Your task to perform on an android device: turn off translation in the chrome app Image 0: 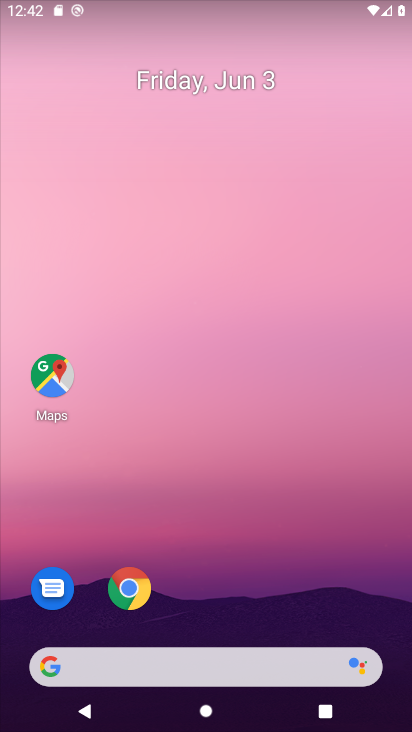
Step 0: drag from (261, 321) to (270, 223)
Your task to perform on an android device: turn off translation in the chrome app Image 1: 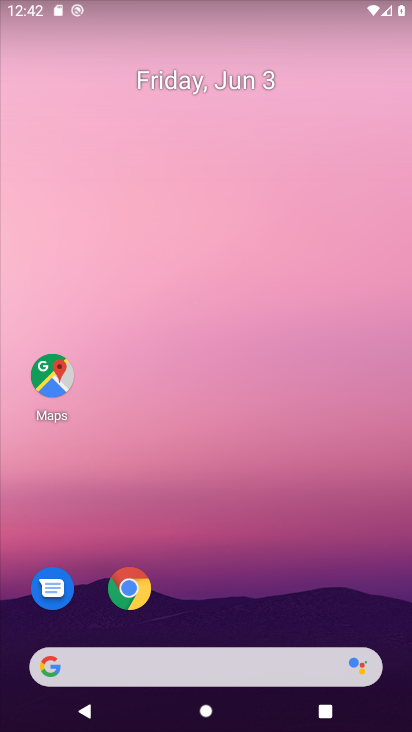
Step 1: drag from (213, 208) to (213, 171)
Your task to perform on an android device: turn off translation in the chrome app Image 2: 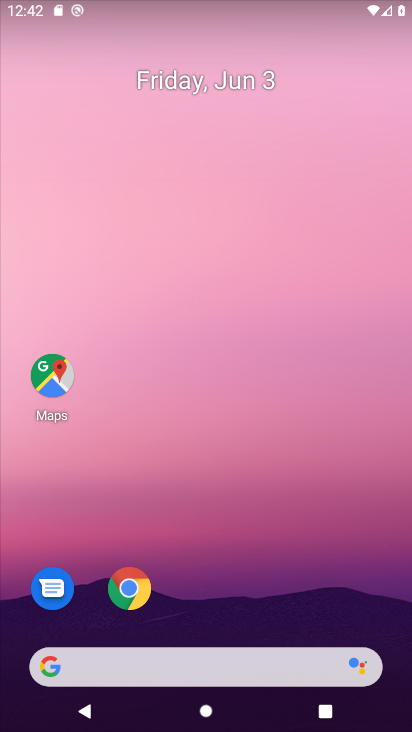
Step 2: drag from (186, 632) to (222, 239)
Your task to perform on an android device: turn off translation in the chrome app Image 3: 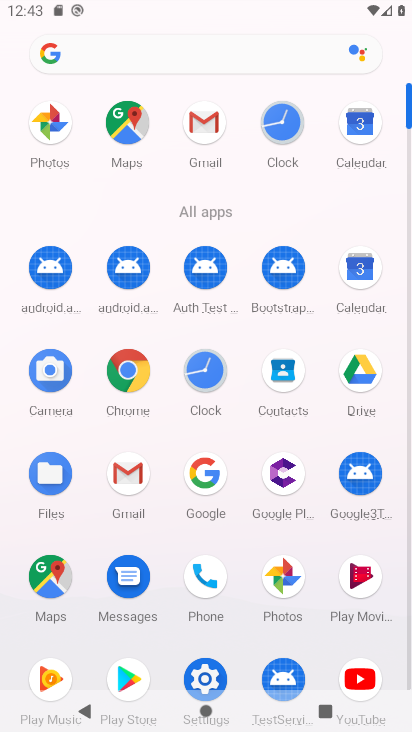
Step 3: click (139, 381)
Your task to perform on an android device: turn off translation in the chrome app Image 4: 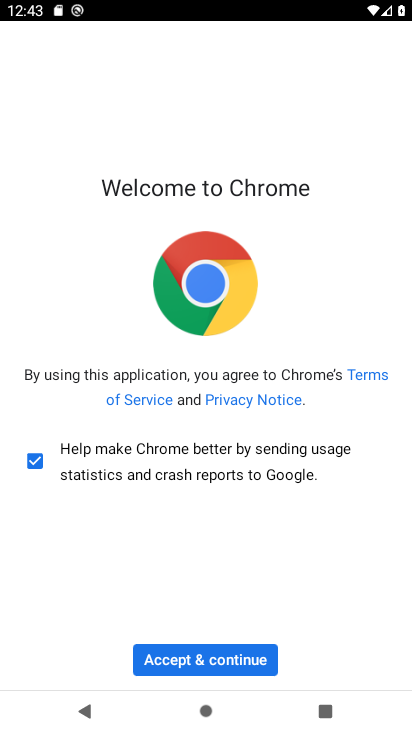
Step 4: click (176, 655)
Your task to perform on an android device: turn off translation in the chrome app Image 5: 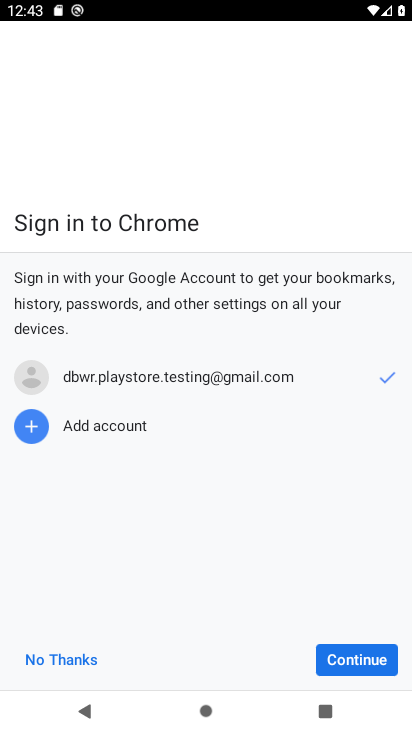
Step 5: click (336, 659)
Your task to perform on an android device: turn off translation in the chrome app Image 6: 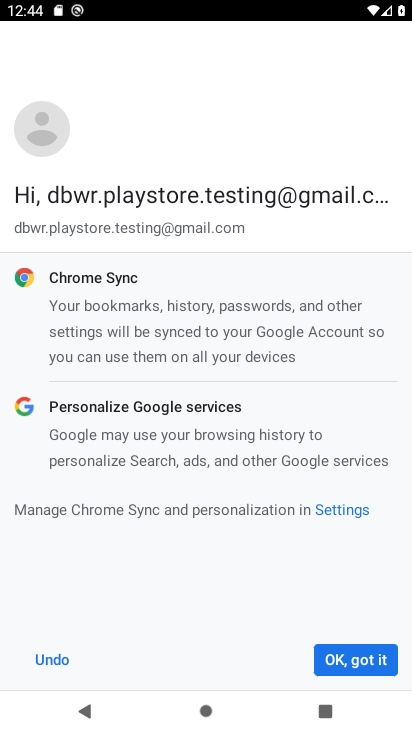
Step 6: click (345, 660)
Your task to perform on an android device: turn off translation in the chrome app Image 7: 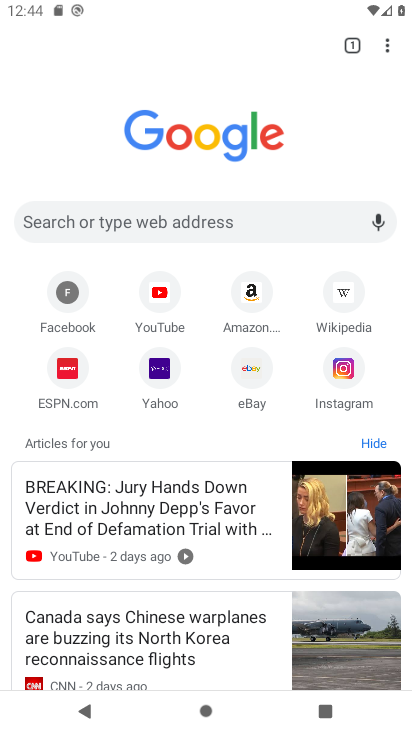
Step 7: click (393, 50)
Your task to perform on an android device: turn off translation in the chrome app Image 8: 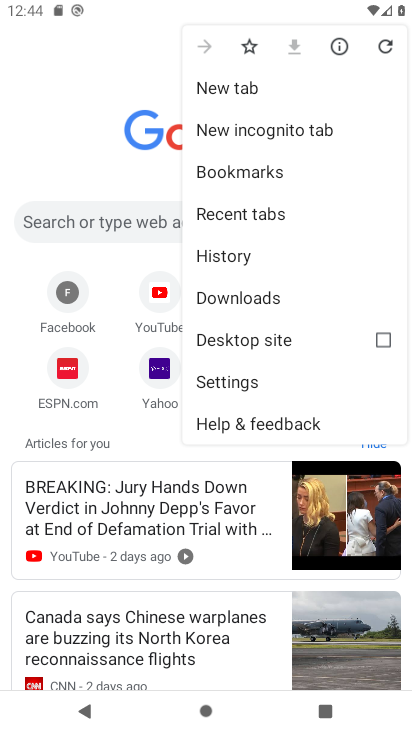
Step 8: task complete